Your task to perform on an android device: When is my next meeting? Image 0: 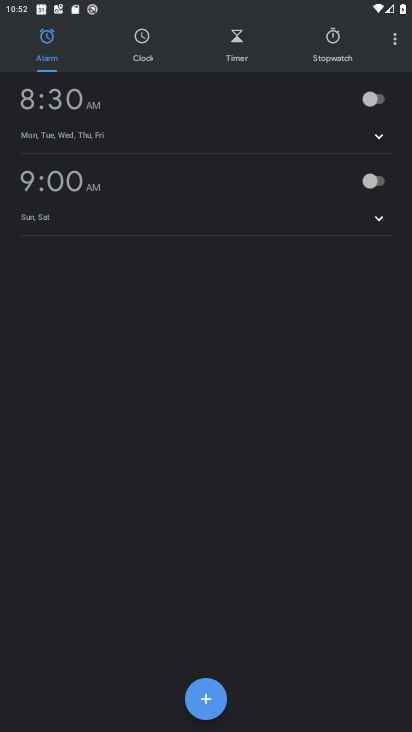
Step 0: press home button
Your task to perform on an android device: When is my next meeting? Image 1: 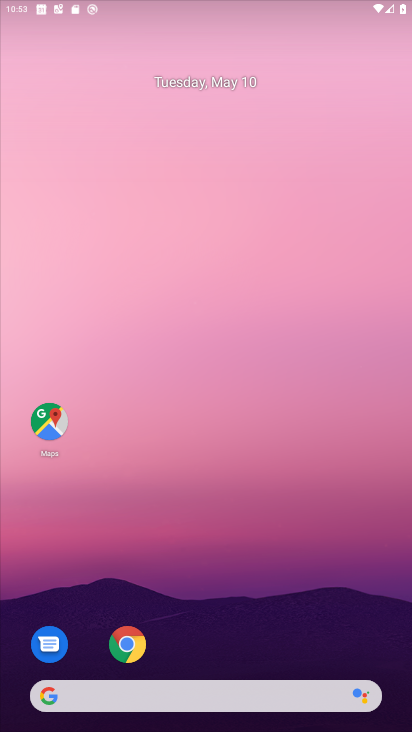
Step 1: drag from (258, 648) to (324, 76)
Your task to perform on an android device: When is my next meeting? Image 2: 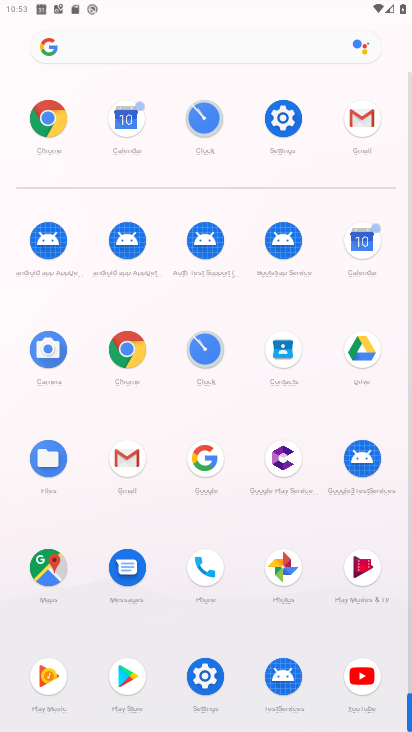
Step 2: click (368, 252)
Your task to perform on an android device: When is my next meeting? Image 3: 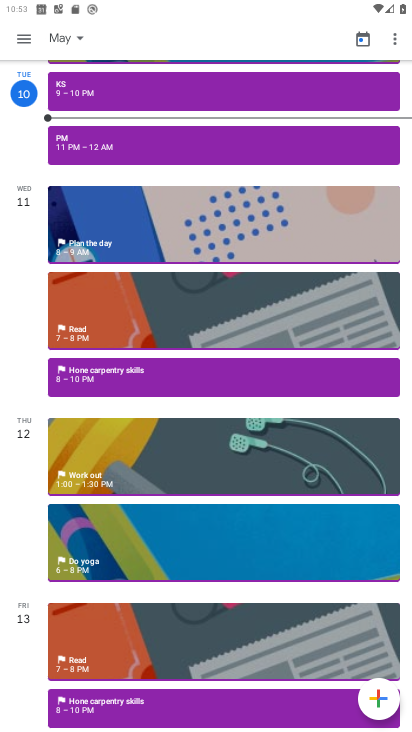
Step 3: task complete